Your task to perform on an android device: toggle translation in the chrome app Image 0: 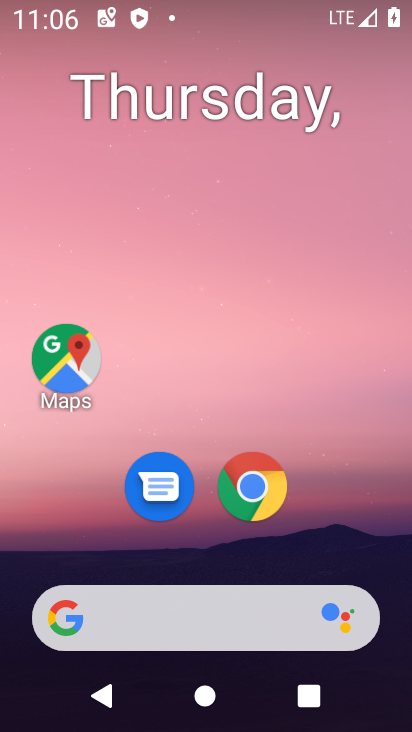
Step 0: click (251, 489)
Your task to perform on an android device: toggle translation in the chrome app Image 1: 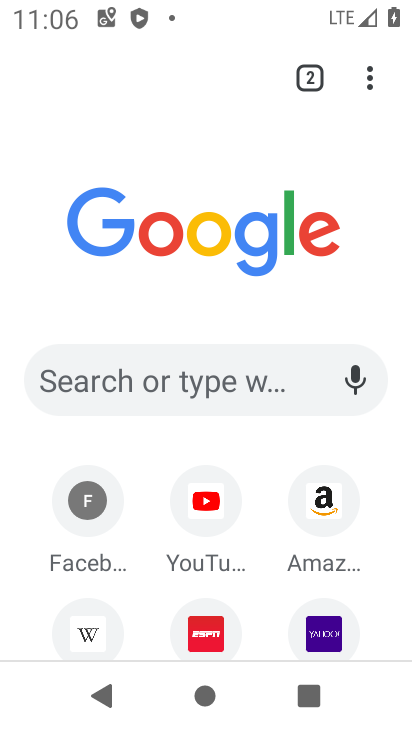
Step 1: click (368, 79)
Your task to perform on an android device: toggle translation in the chrome app Image 2: 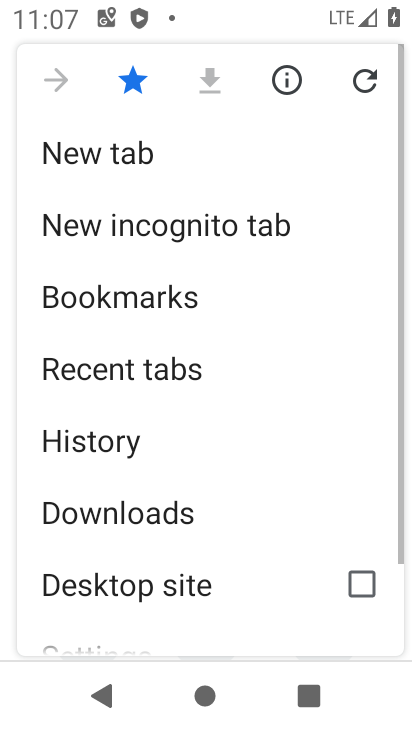
Step 2: drag from (187, 573) to (265, 92)
Your task to perform on an android device: toggle translation in the chrome app Image 3: 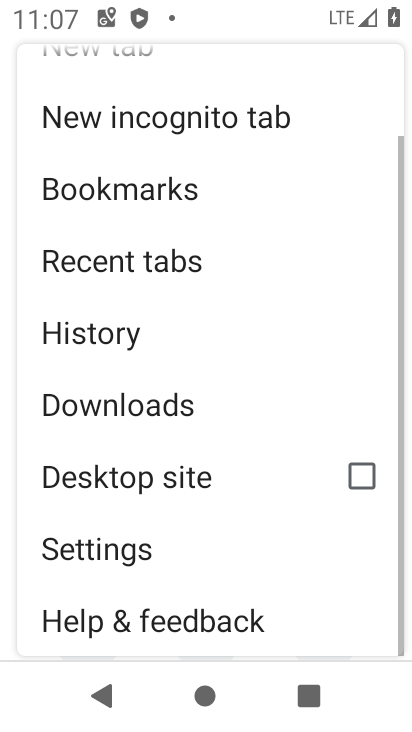
Step 3: click (110, 541)
Your task to perform on an android device: toggle translation in the chrome app Image 4: 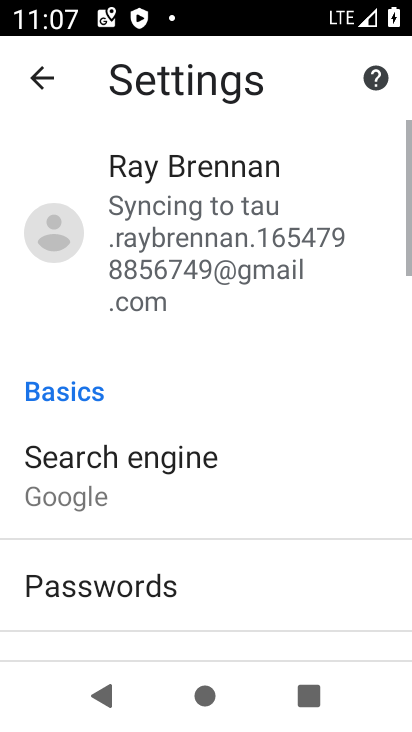
Step 4: drag from (139, 614) to (287, 98)
Your task to perform on an android device: toggle translation in the chrome app Image 5: 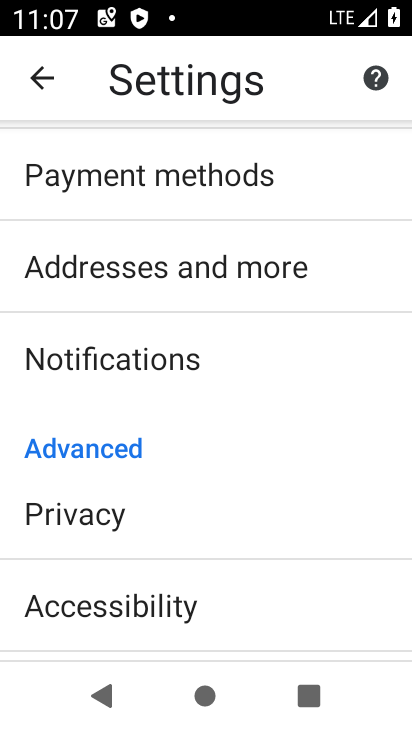
Step 5: drag from (176, 586) to (276, 173)
Your task to perform on an android device: toggle translation in the chrome app Image 6: 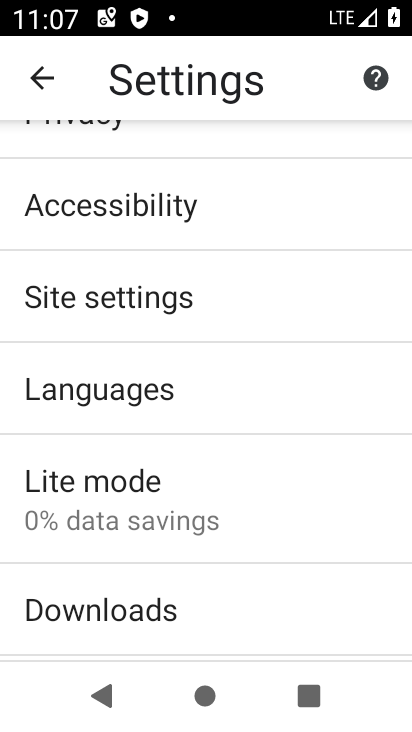
Step 6: click (145, 396)
Your task to perform on an android device: toggle translation in the chrome app Image 7: 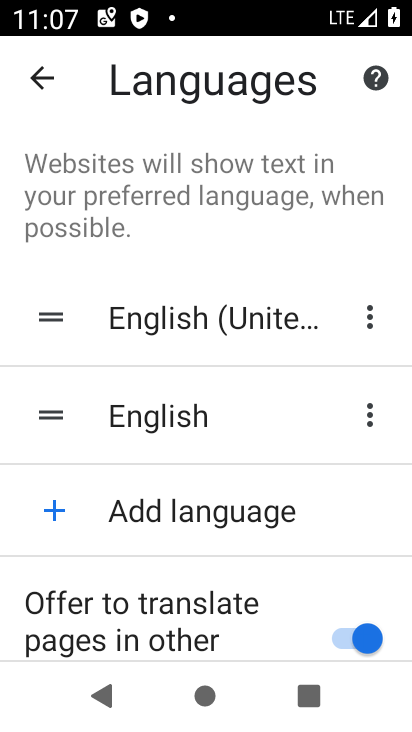
Step 7: click (346, 631)
Your task to perform on an android device: toggle translation in the chrome app Image 8: 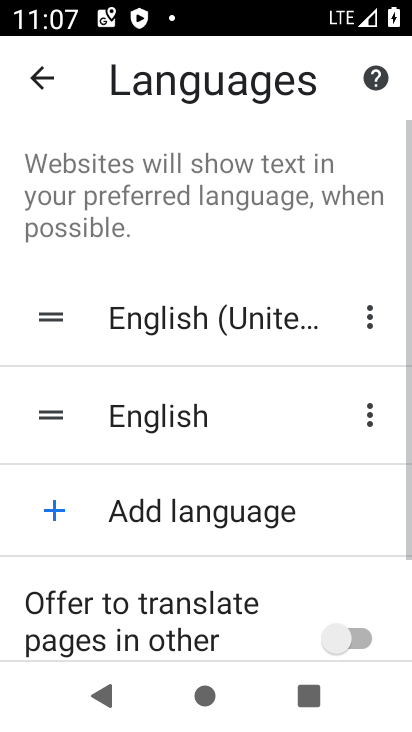
Step 8: task complete